Your task to perform on an android device: Search for vegetarian restaurants on Maps Image 0: 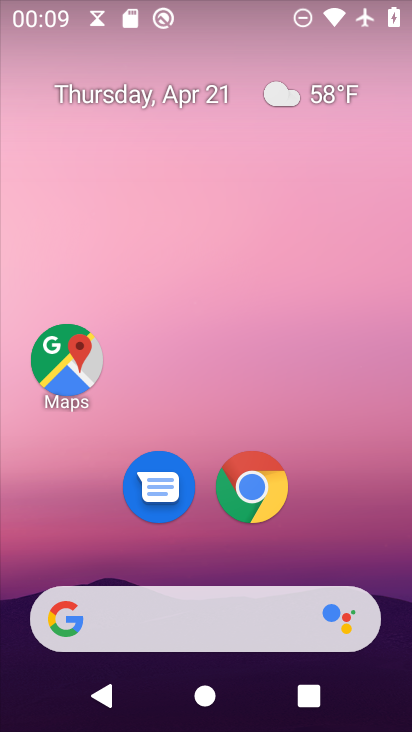
Step 0: drag from (329, 447) to (188, 53)
Your task to perform on an android device: Search for vegetarian restaurants on Maps Image 1: 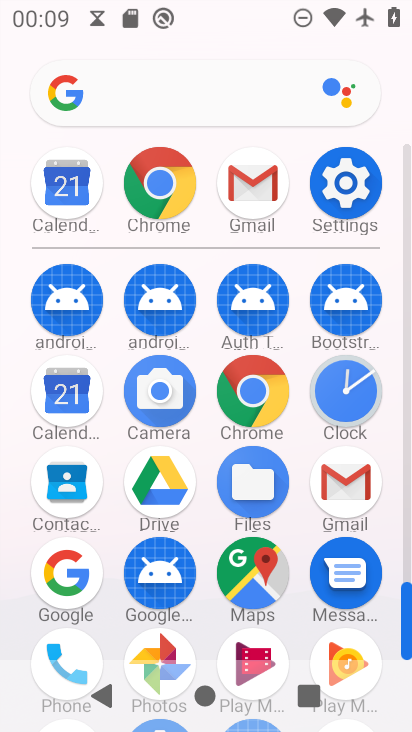
Step 1: click (251, 572)
Your task to perform on an android device: Search for vegetarian restaurants on Maps Image 2: 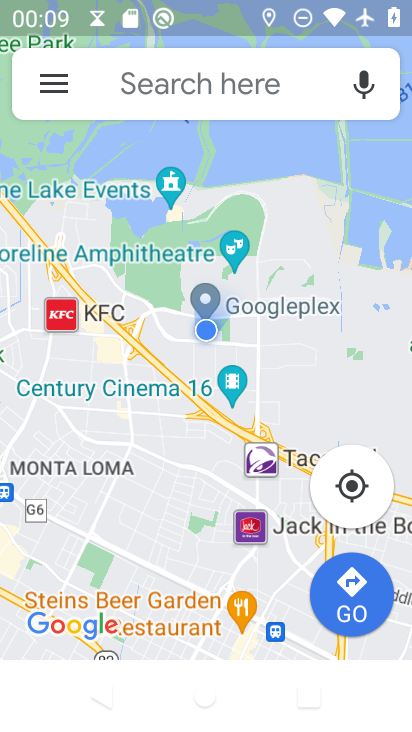
Step 2: click (291, 78)
Your task to perform on an android device: Search for vegetarian restaurants on Maps Image 3: 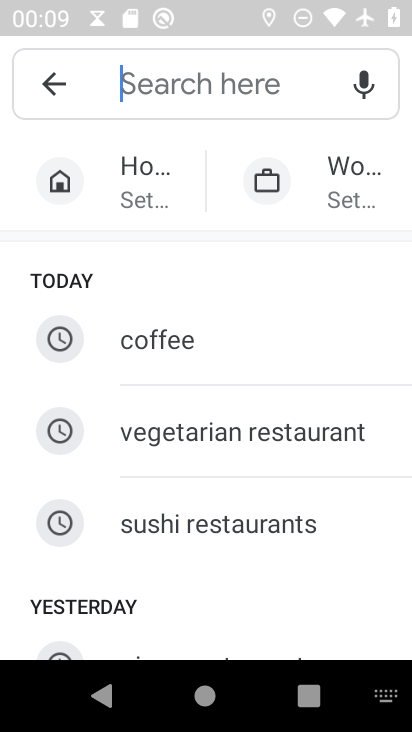
Step 3: drag from (309, 479) to (288, 167)
Your task to perform on an android device: Search for vegetarian restaurants on Maps Image 4: 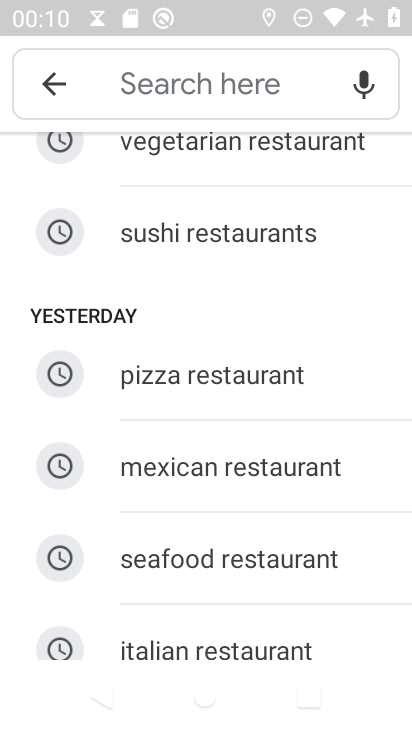
Step 4: drag from (285, 582) to (298, 631)
Your task to perform on an android device: Search for vegetarian restaurants on Maps Image 5: 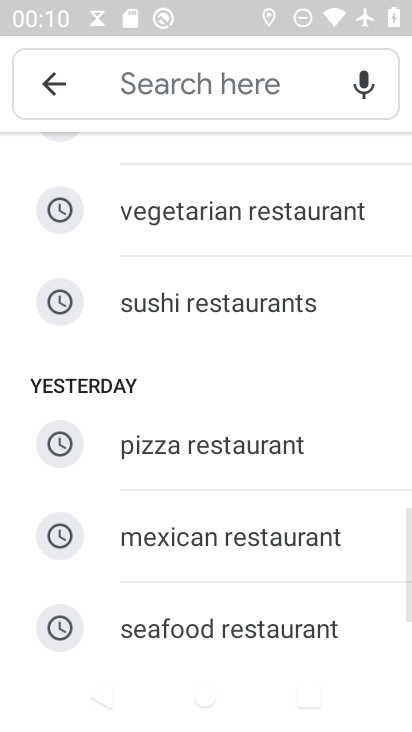
Step 5: click (232, 205)
Your task to perform on an android device: Search for vegetarian restaurants on Maps Image 6: 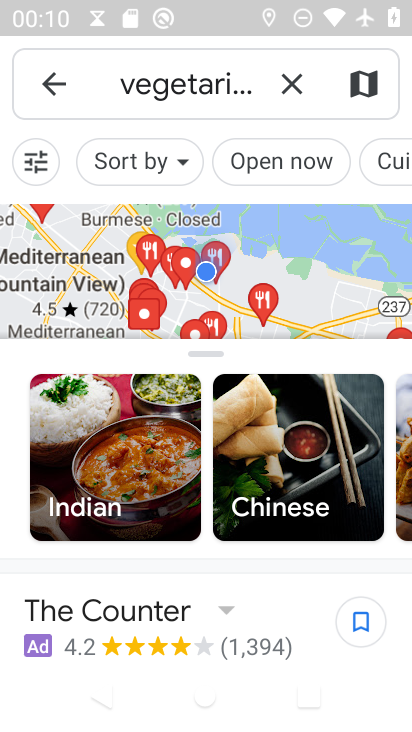
Step 6: task complete